Your task to perform on an android device: Go to eBay Image 0: 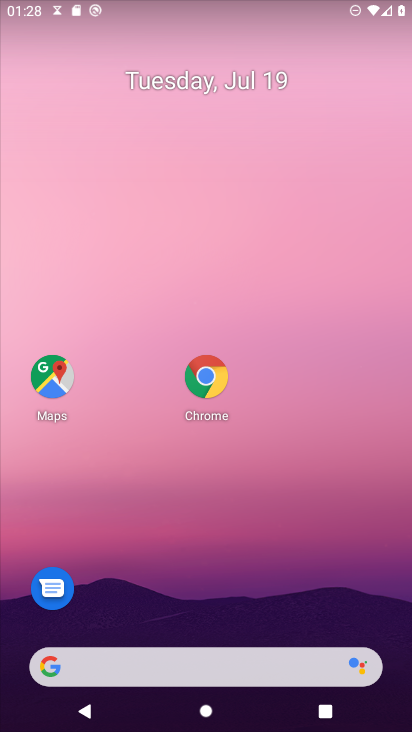
Step 0: press home button
Your task to perform on an android device: Go to eBay Image 1: 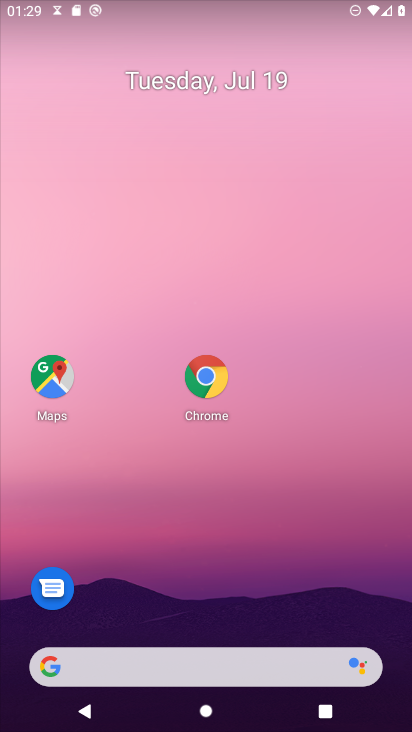
Step 1: click (50, 669)
Your task to perform on an android device: Go to eBay Image 2: 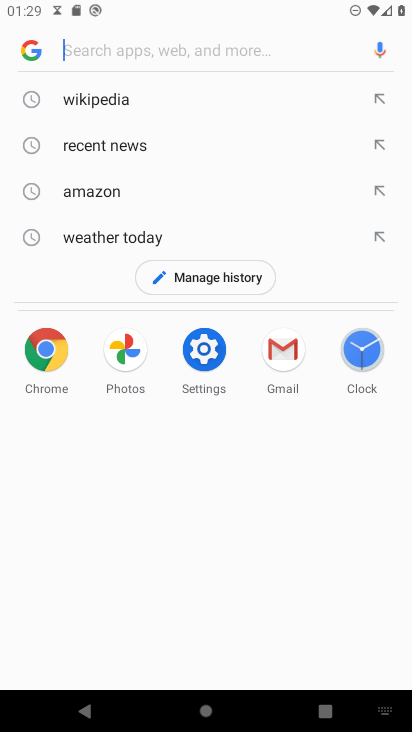
Step 2: type "eBay"
Your task to perform on an android device: Go to eBay Image 3: 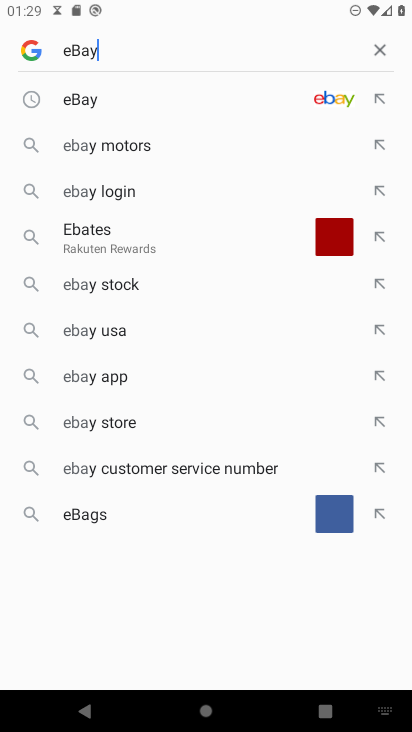
Step 3: press enter
Your task to perform on an android device: Go to eBay Image 4: 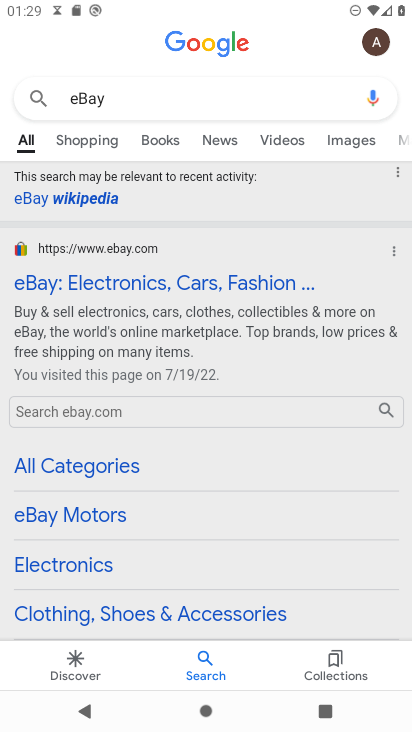
Step 4: click (106, 285)
Your task to perform on an android device: Go to eBay Image 5: 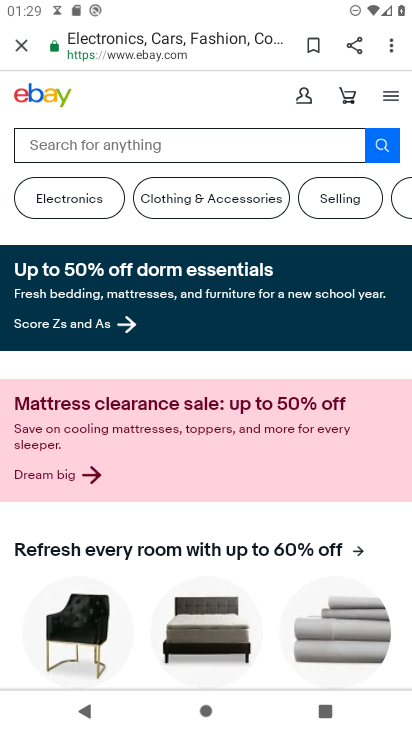
Step 5: task complete